Your task to perform on an android device: find which apps use the phone's location Image 0: 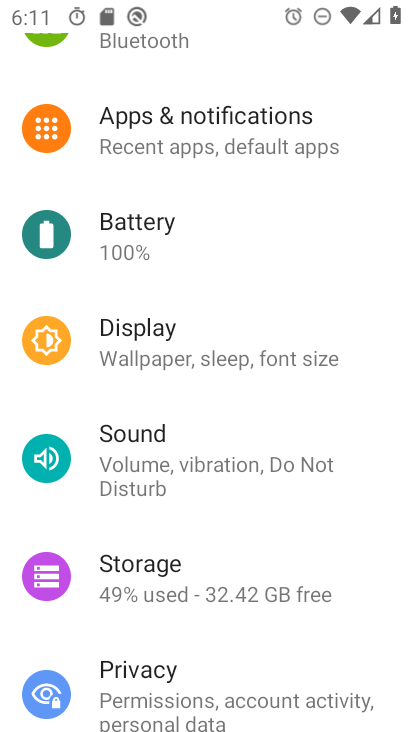
Step 0: press home button
Your task to perform on an android device: find which apps use the phone's location Image 1: 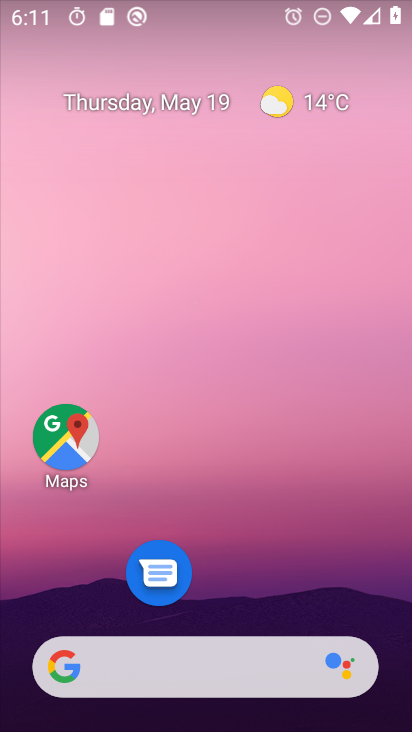
Step 1: drag from (254, 608) to (240, 139)
Your task to perform on an android device: find which apps use the phone's location Image 2: 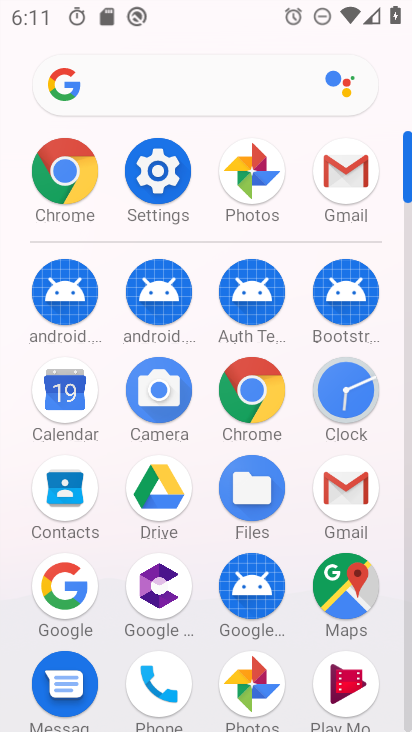
Step 2: click (151, 180)
Your task to perform on an android device: find which apps use the phone's location Image 3: 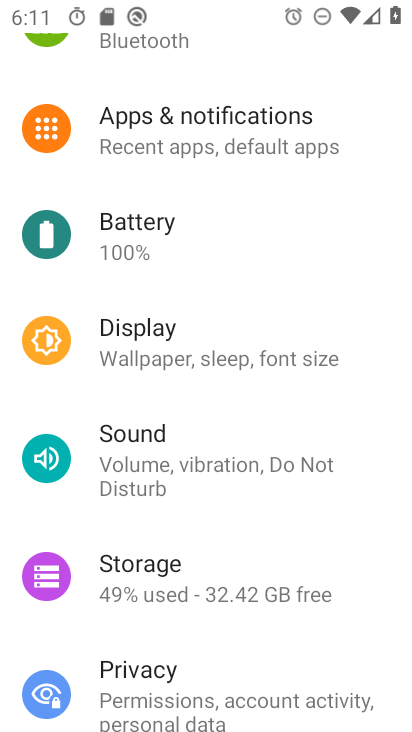
Step 3: drag from (224, 620) to (215, 272)
Your task to perform on an android device: find which apps use the phone's location Image 4: 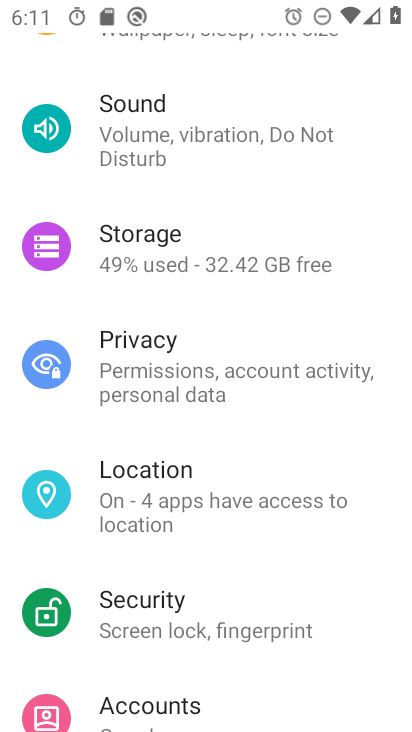
Step 4: click (147, 489)
Your task to perform on an android device: find which apps use the phone's location Image 5: 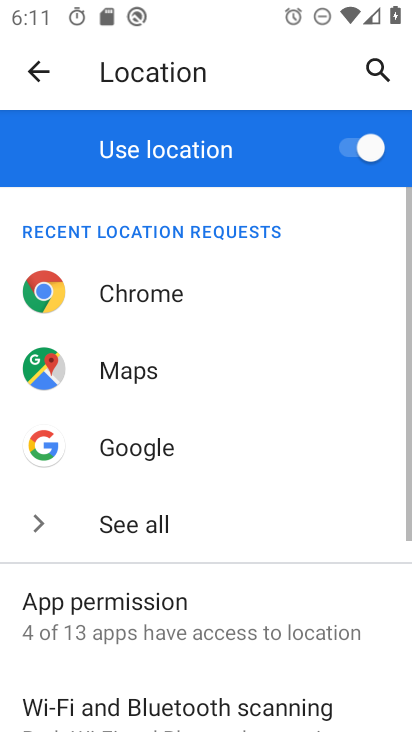
Step 5: click (100, 619)
Your task to perform on an android device: find which apps use the phone's location Image 6: 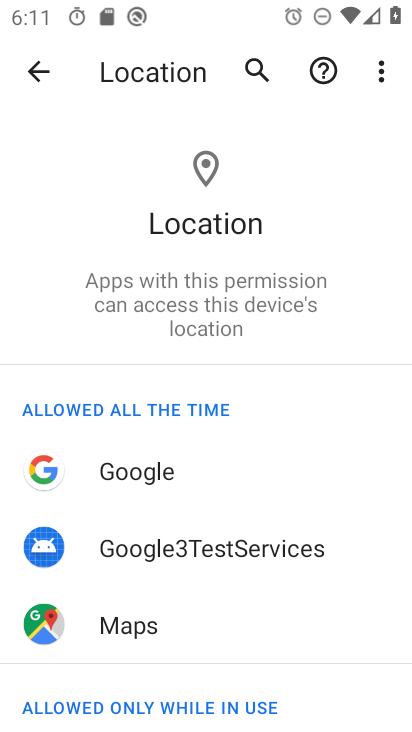
Step 6: task complete